Your task to perform on an android device: change notification settings in the gmail app Image 0: 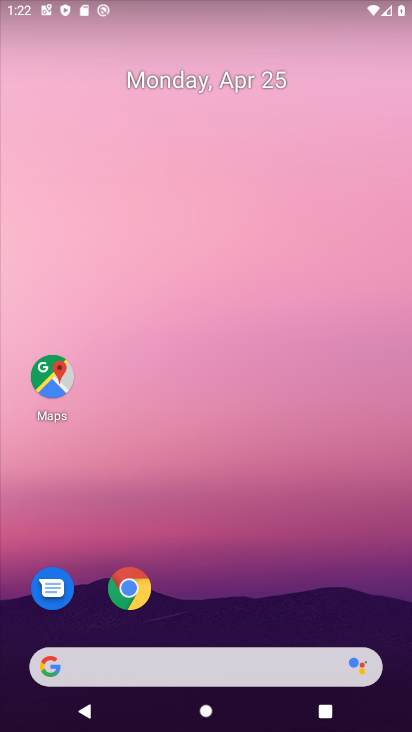
Step 0: drag from (215, 350) to (270, 117)
Your task to perform on an android device: change notification settings in the gmail app Image 1: 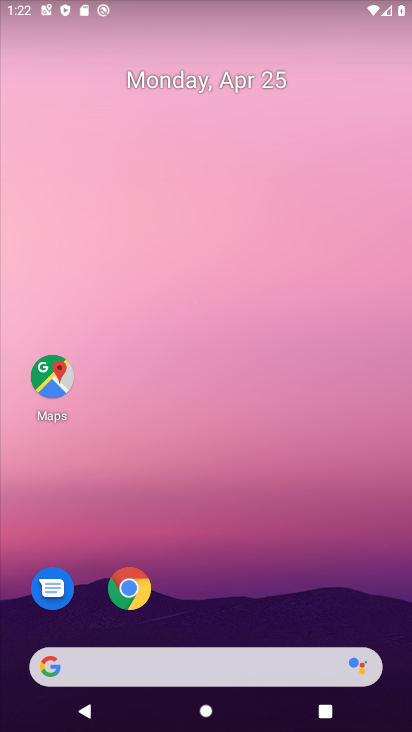
Step 1: drag from (278, 583) to (231, 67)
Your task to perform on an android device: change notification settings in the gmail app Image 2: 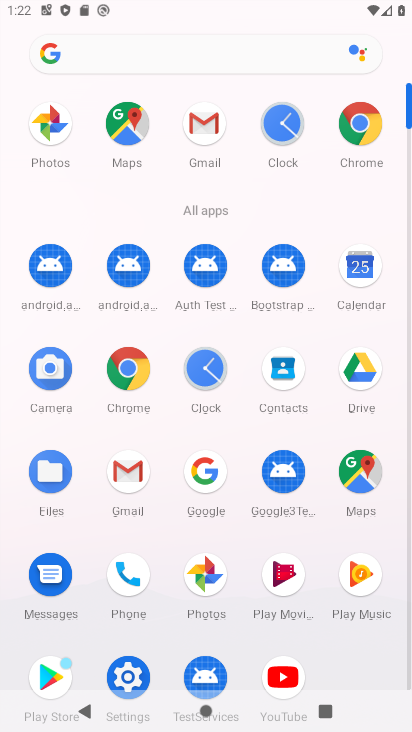
Step 2: click (113, 476)
Your task to perform on an android device: change notification settings in the gmail app Image 3: 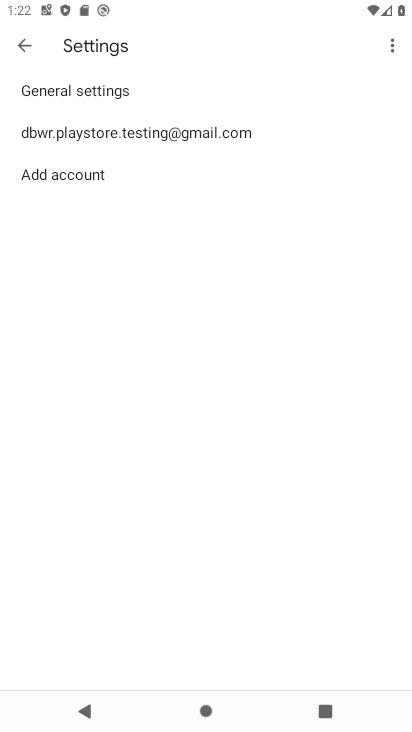
Step 3: click (112, 133)
Your task to perform on an android device: change notification settings in the gmail app Image 4: 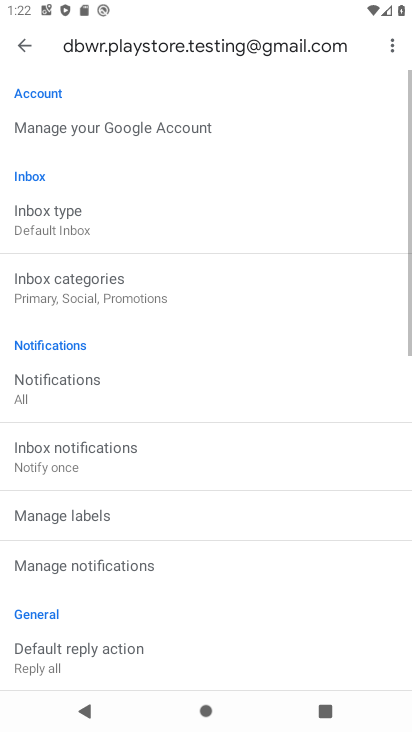
Step 4: click (84, 399)
Your task to perform on an android device: change notification settings in the gmail app Image 5: 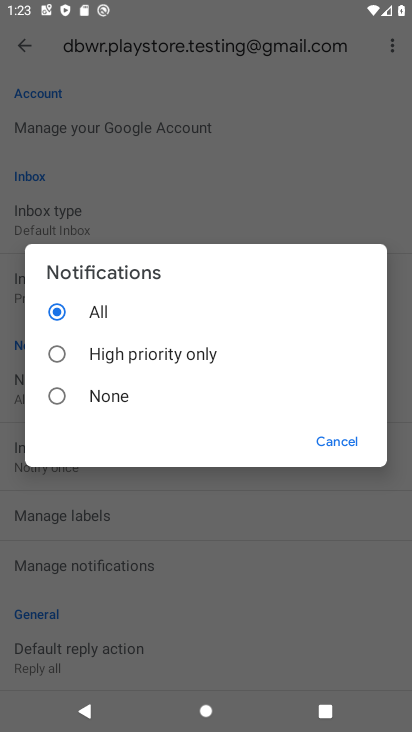
Step 5: click (93, 354)
Your task to perform on an android device: change notification settings in the gmail app Image 6: 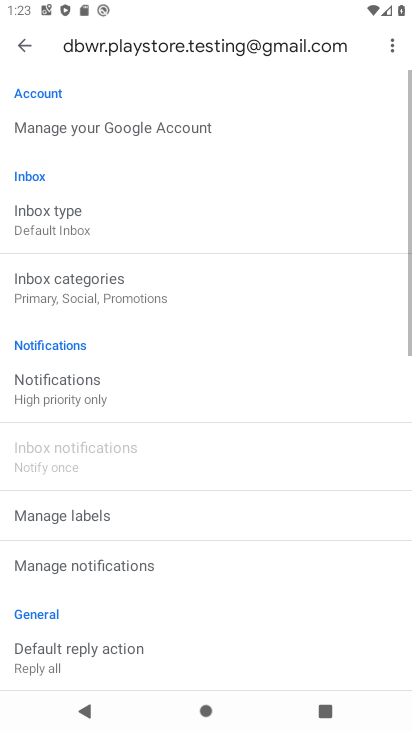
Step 6: task complete